Your task to perform on an android device: Go to CNN.com Image 0: 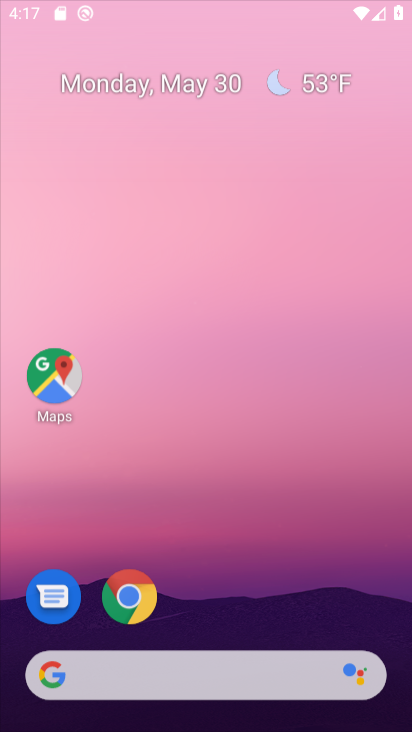
Step 0: click (296, 45)
Your task to perform on an android device: Go to CNN.com Image 1: 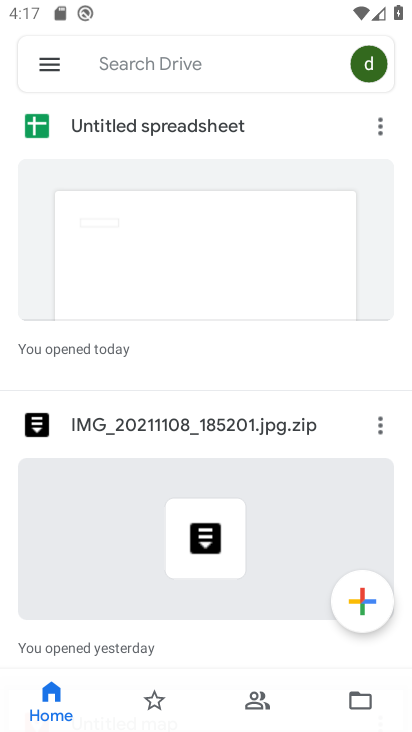
Step 1: press home button
Your task to perform on an android device: Go to CNN.com Image 2: 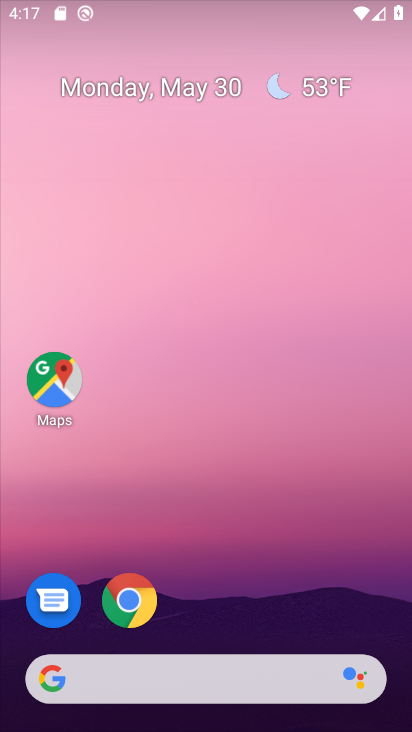
Step 2: drag from (286, 590) to (266, 130)
Your task to perform on an android device: Go to CNN.com Image 3: 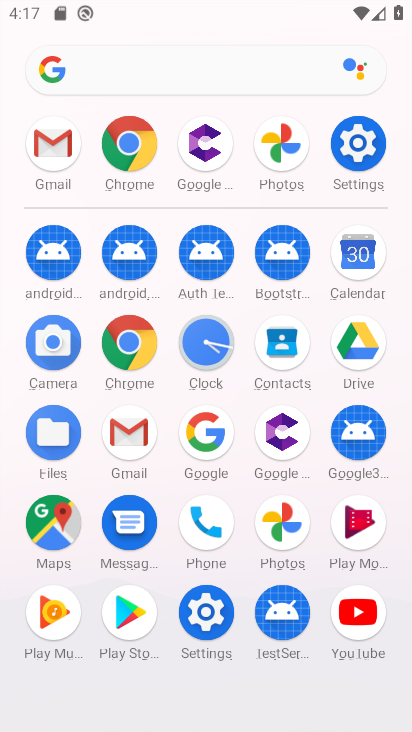
Step 3: click (128, 143)
Your task to perform on an android device: Go to CNN.com Image 4: 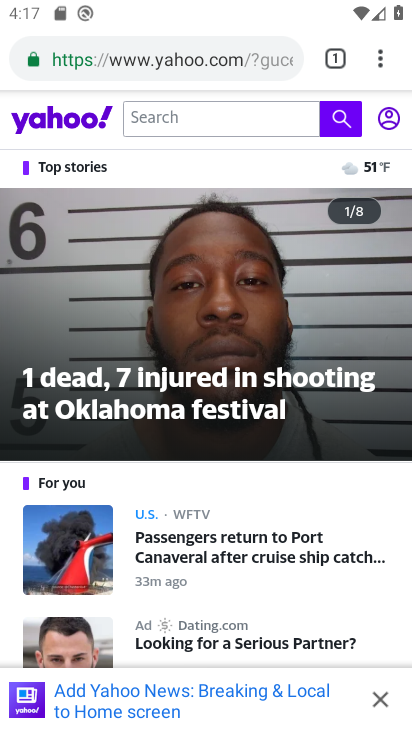
Step 4: click (145, 68)
Your task to perform on an android device: Go to CNN.com Image 5: 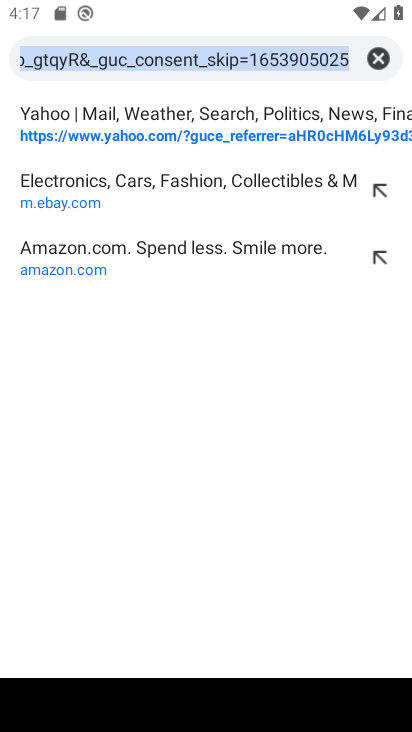
Step 5: click (374, 54)
Your task to perform on an android device: Go to CNN.com Image 6: 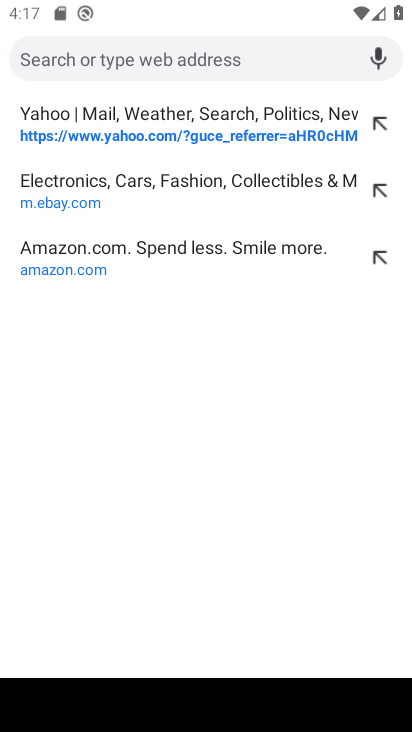
Step 6: type "cnn"
Your task to perform on an android device: Go to CNN.com Image 7: 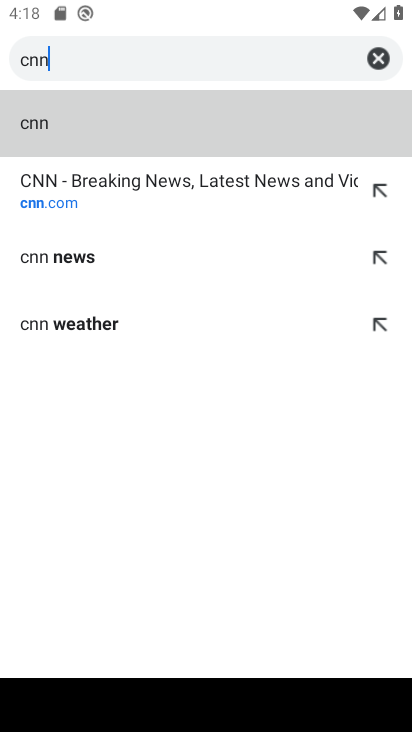
Step 7: click (105, 203)
Your task to perform on an android device: Go to CNN.com Image 8: 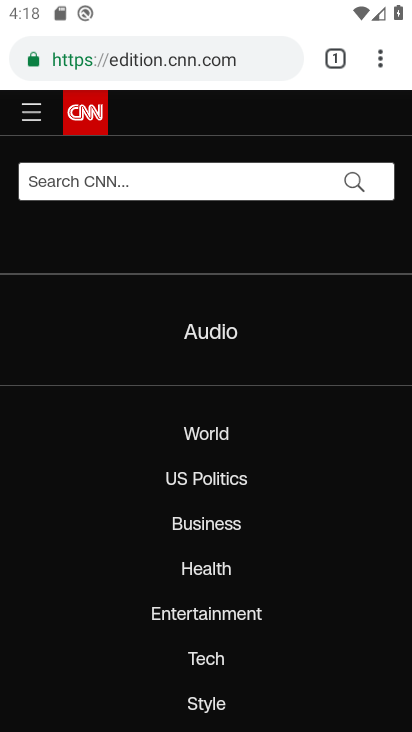
Step 8: task complete